Your task to perform on an android device: What's the weather today? Image 0: 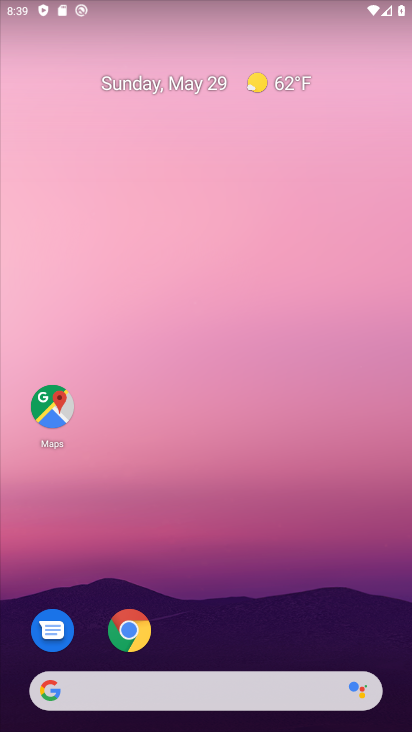
Step 0: click (297, 78)
Your task to perform on an android device: What's the weather today? Image 1: 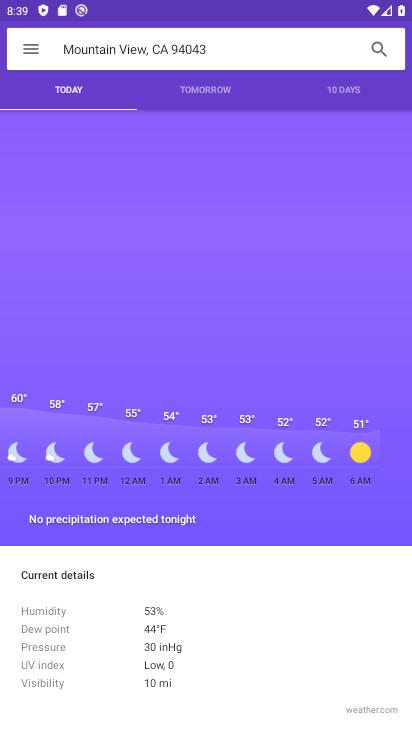
Step 1: task complete